Your task to perform on an android device: Search for Italian restaurants on Maps Image 0: 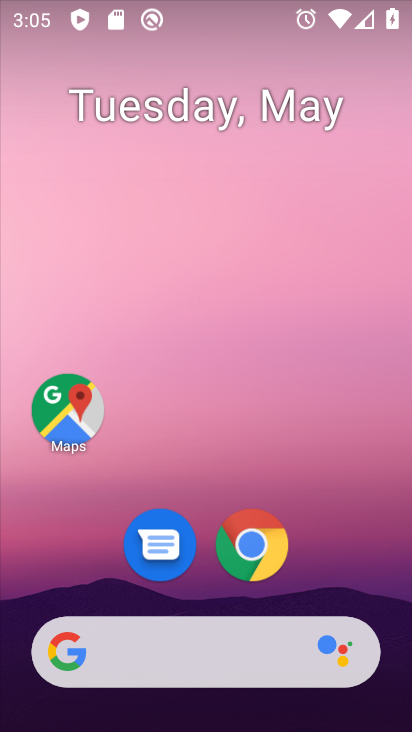
Step 0: drag from (225, 637) to (288, 135)
Your task to perform on an android device: Search for Italian restaurants on Maps Image 1: 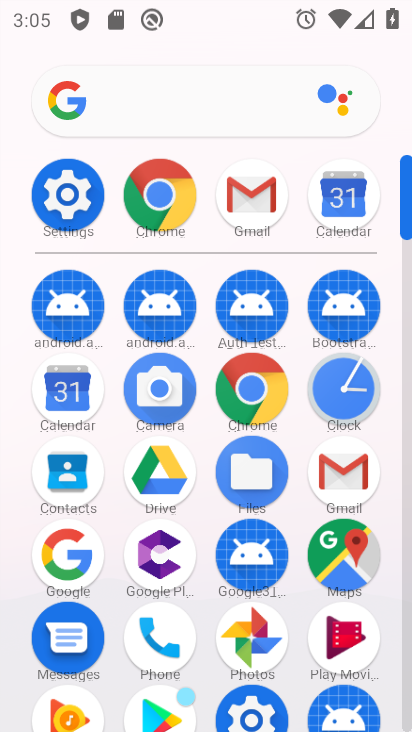
Step 1: click (361, 550)
Your task to perform on an android device: Search for Italian restaurants on Maps Image 2: 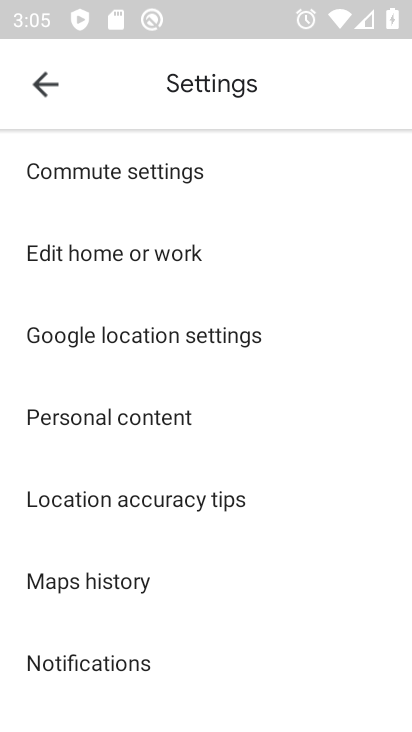
Step 2: click (50, 78)
Your task to perform on an android device: Search for Italian restaurants on Maps Image 3: 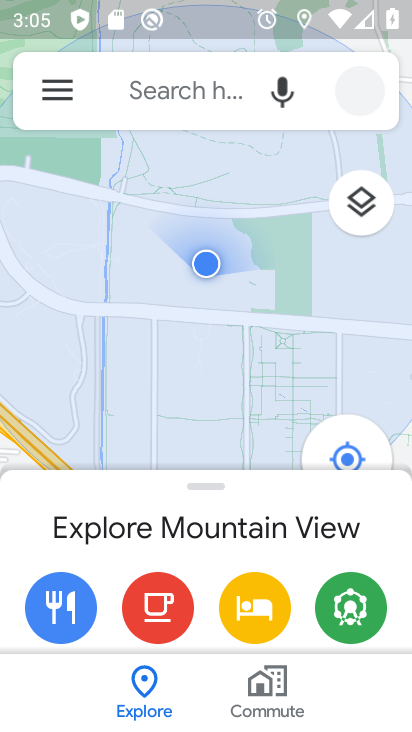
Step 3: click (243, 326)
Your task to perform on an android device: Search for Italian restaurants on Maps Image 4: 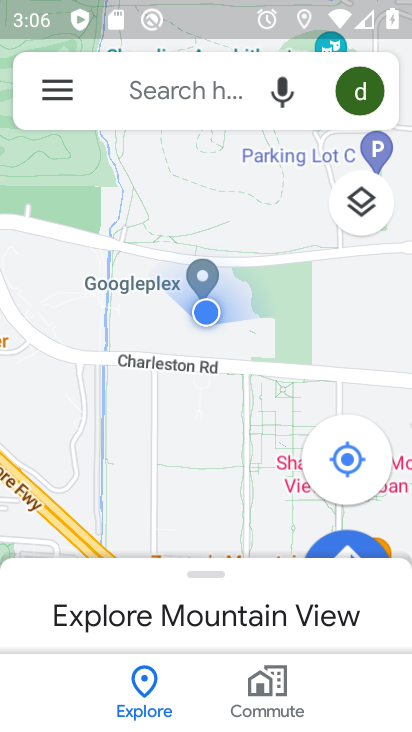
Step 4: click (186, 82)
Your task to perform on an android device: Search for Italian restaurants on Maps Image 5: 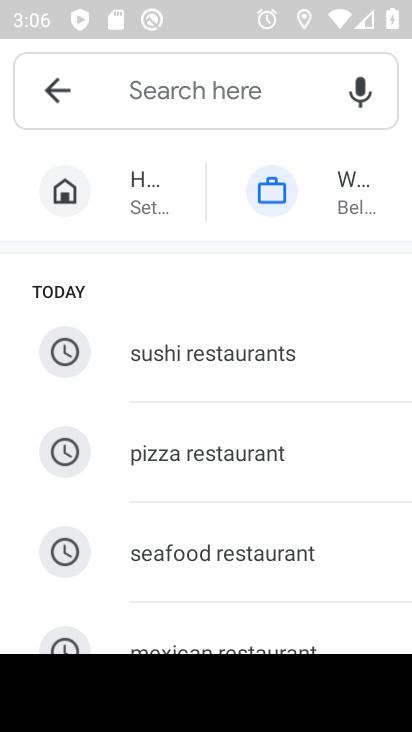
Step 5: drag from (309, 547) to (313, 177)
Your task to perform on an android device: Search for Italian restaurants on Maps Image 6: 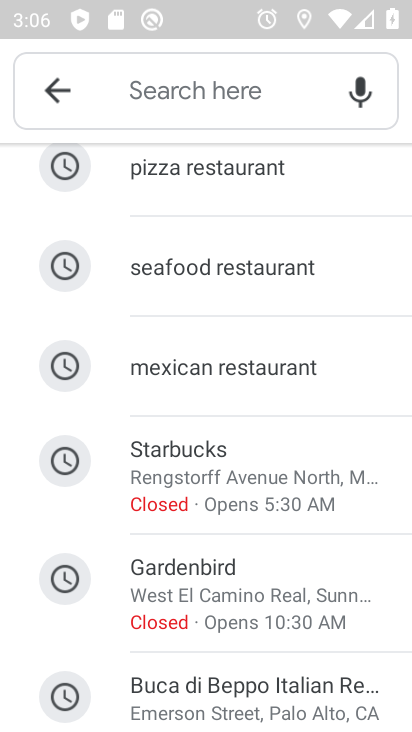
Step 6: click (161, 76)
Your task to perform on an android device: Search for Italian restaurants on Maps Image 7: 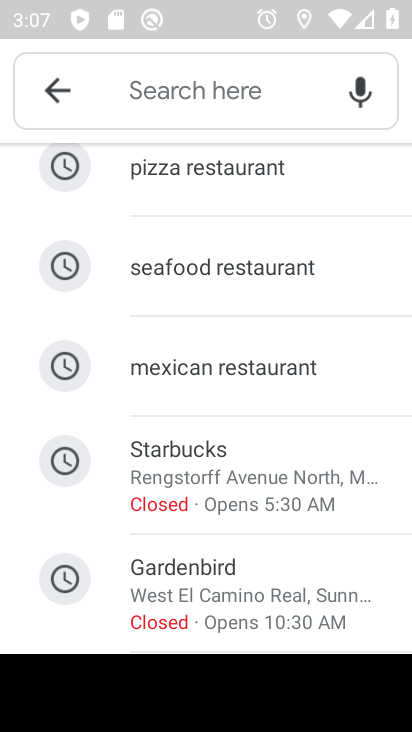
Step 7: type "italian restaurants"
Your task to perform on an android device: Search for Italian restaurants on Maps Image 8: 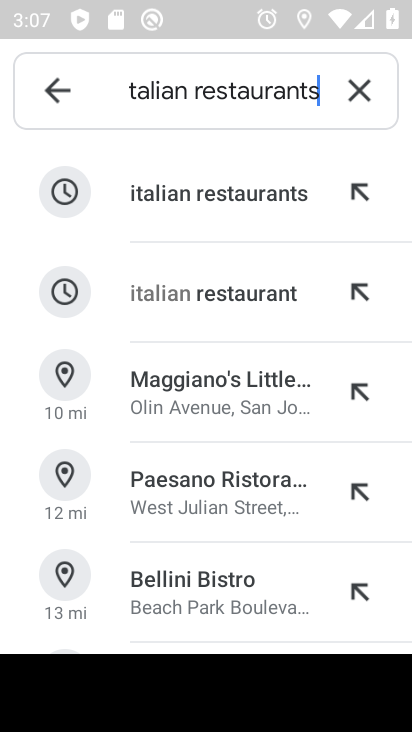
Step 8: click (177, 192)
Your task to perform on an android device: Search for Italian restaurants on Maps Image 9: 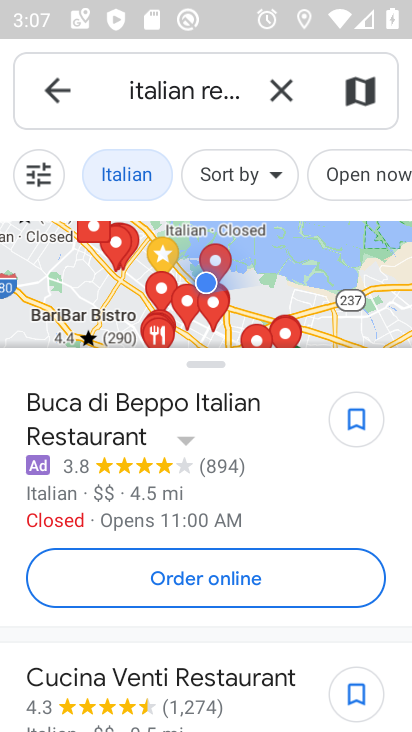
Step 9: task complete